Your task to perform on an android device: toggle show notifications on the lock screen Image 0: 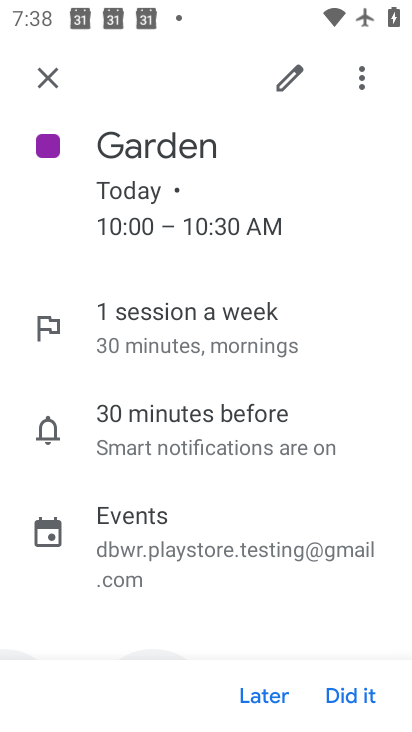
Step 0: press home button
Your task to perform on an android device: toggle show notifications on the lock screen Image 1: 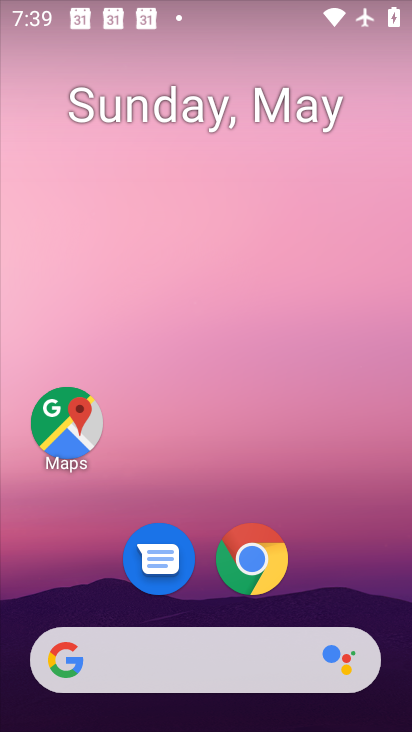
Step 1: drag from (214, 616) to (320, 89)
Your task to perform on an android device: toggle show notifications on the lock screen Image 2: 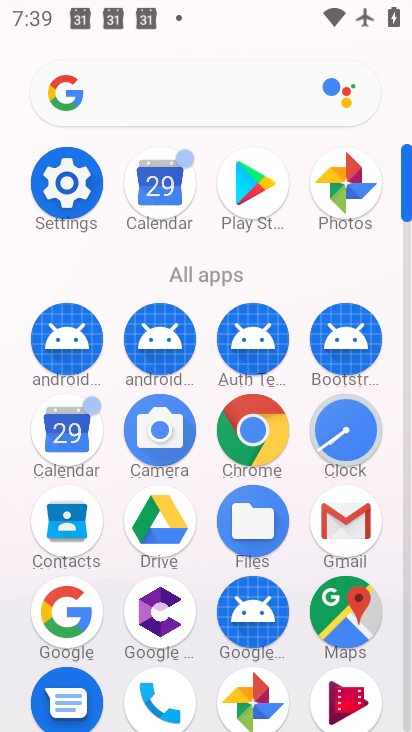
Step 2: click (63, 188)
Your task to perform on an android device: toggle show notifications on the lock screen Image 3: 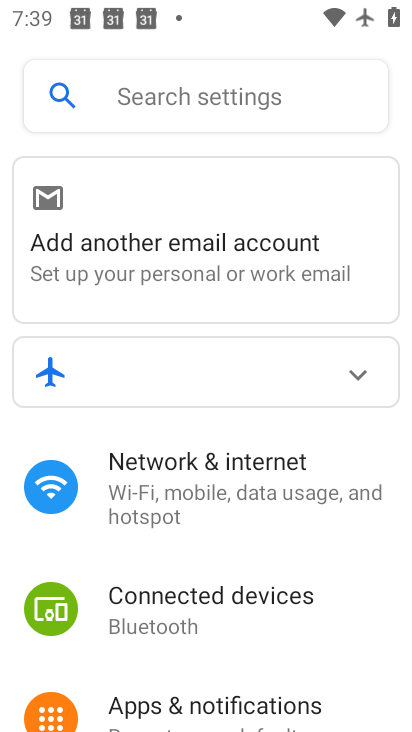
Step 3: drag from (318, 585) to (356, 102)
Your task to perform on an android device: toggle show notifications on the lock screen Image 4: 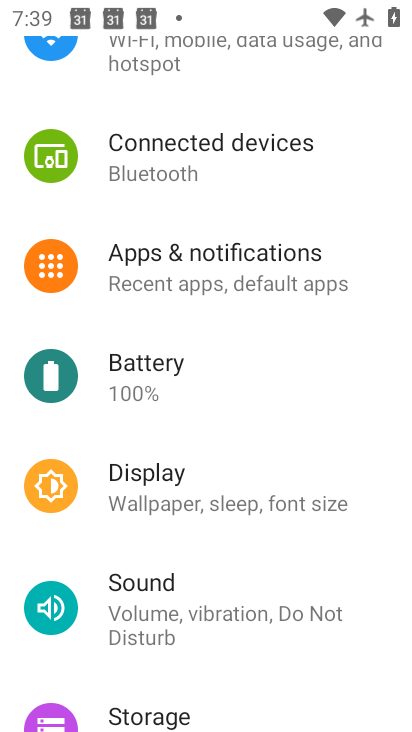
Step 4: click (226, 264)
Your task to perform on an android device: toggle show notifications on the lock screen Image 5: 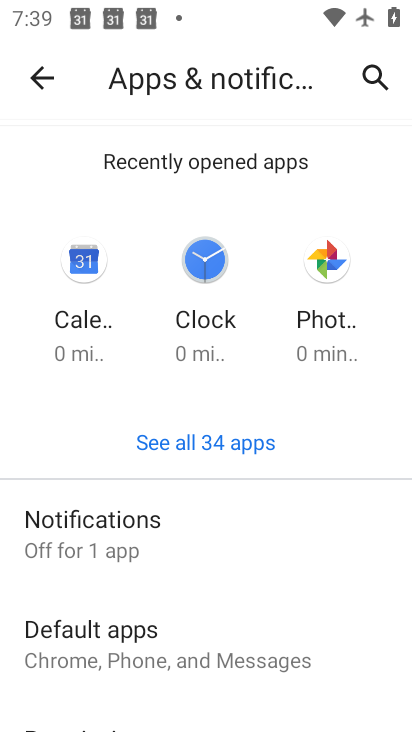
Step 5: click (123, 542)
Your task to perform on an android device: toggle show notifications on the lock screen Image 6: 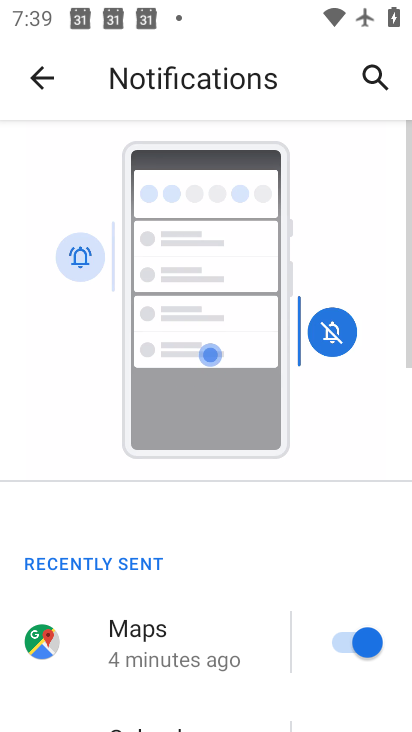
Step 6: drag from (231, 645) to (355, 122)
Your task to perform on an android device: toggle show notifications on the lock screen Image 7: 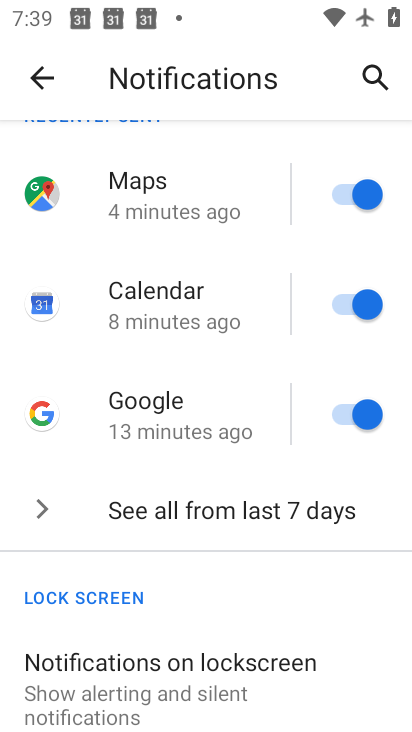
Step 7: drag from (278, 581) to (345, 313)
Your task to perform on an android device: toggle show notifications on the lock screen Image 8: 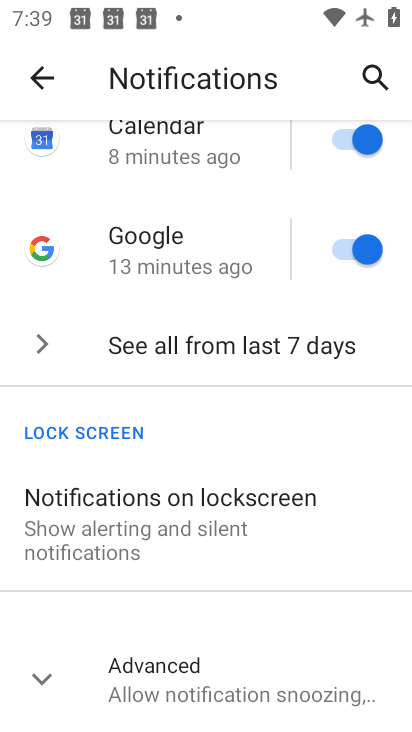
Step 8: click (218, 506)
Your task to perform on an android device: toggle show notifications on the lock screen Image 9: 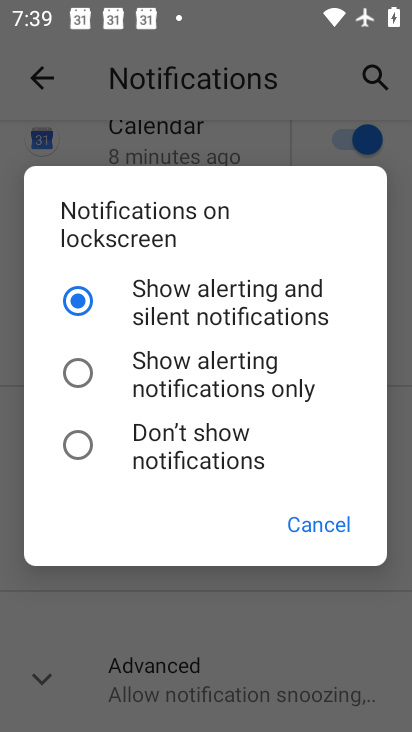
Step 9: click (83, 445)
Your task to perform on an android device: toggle show notifications on the lock screen Image 10: 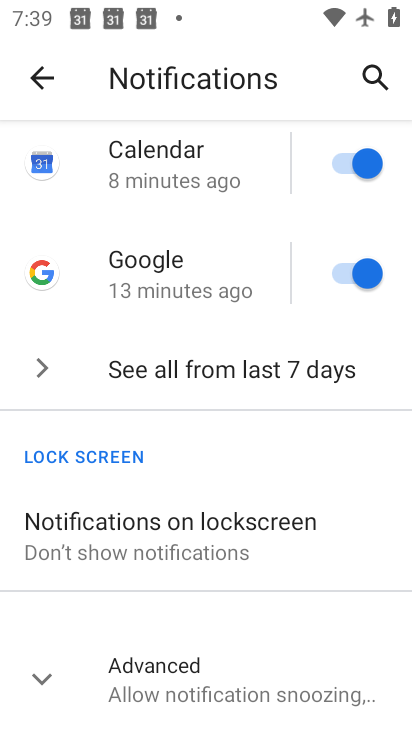
Step 10: task complete